Your task to perform on an android device: Open Google Maps Image 0: 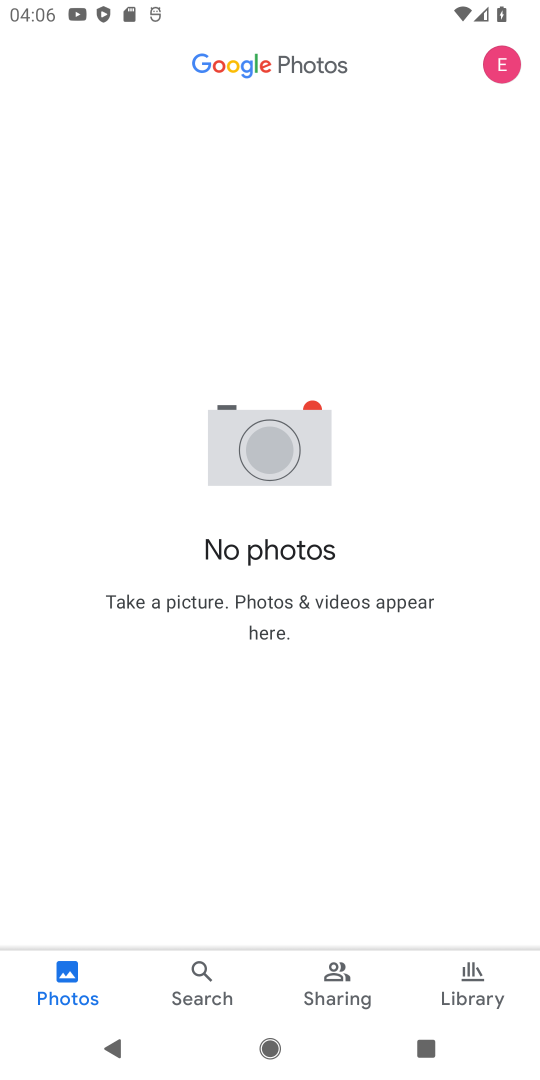
Step 0: press home button
Your task to perform on an android device: Open Google Maps Image 1: 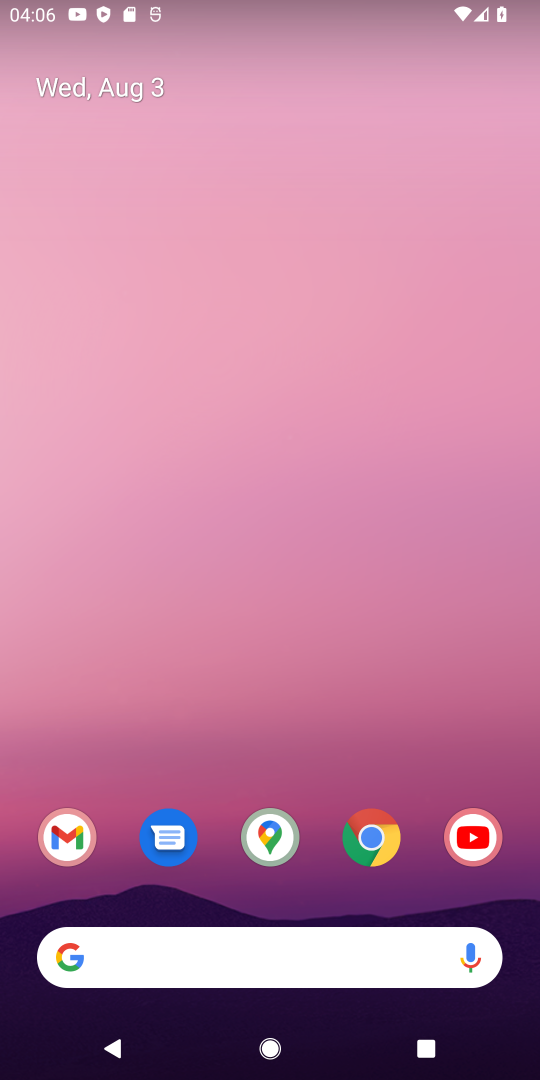
Step 1: click (268, 837)
Your task to perform on an android device: Open Google Maps Image 2: 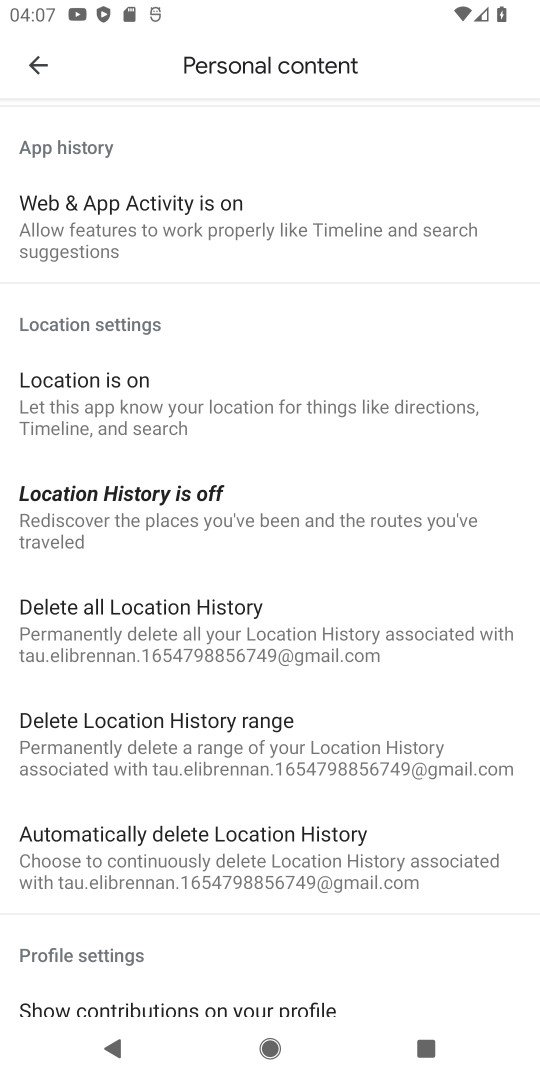
Step 2: task complete